Your task to perform on an android device: open app "Pinterest" (install if not already installed) Image 0: 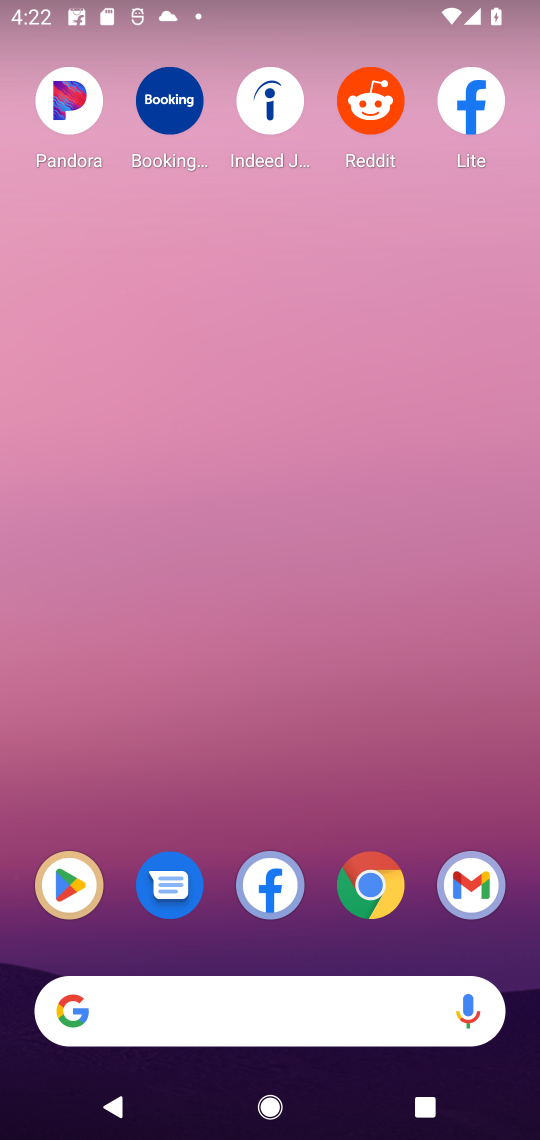
Step 0: click (72, 867)
Your task to perform on an android device: open app "Pinterest" (install if not already installed) Image 1: 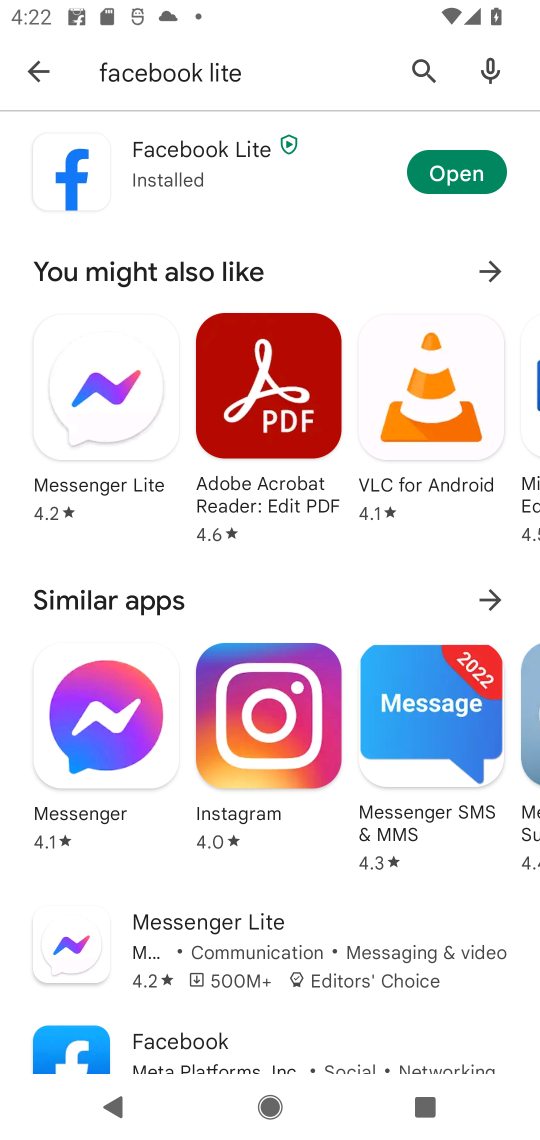
Step 1: click (427, 56)
Your task to perform on an android device: open app "Pinterest" (install if not already installed) Image 2: 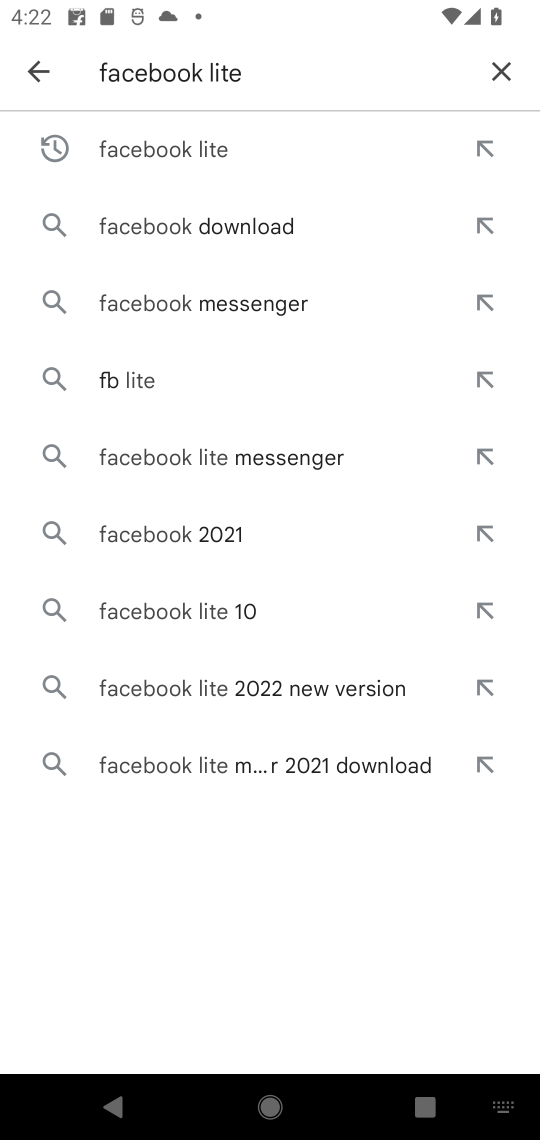
Step 2: click (508, 68)
Your task to perform on an android device: open app "Pinterest" (install if not already installed) Image 3: 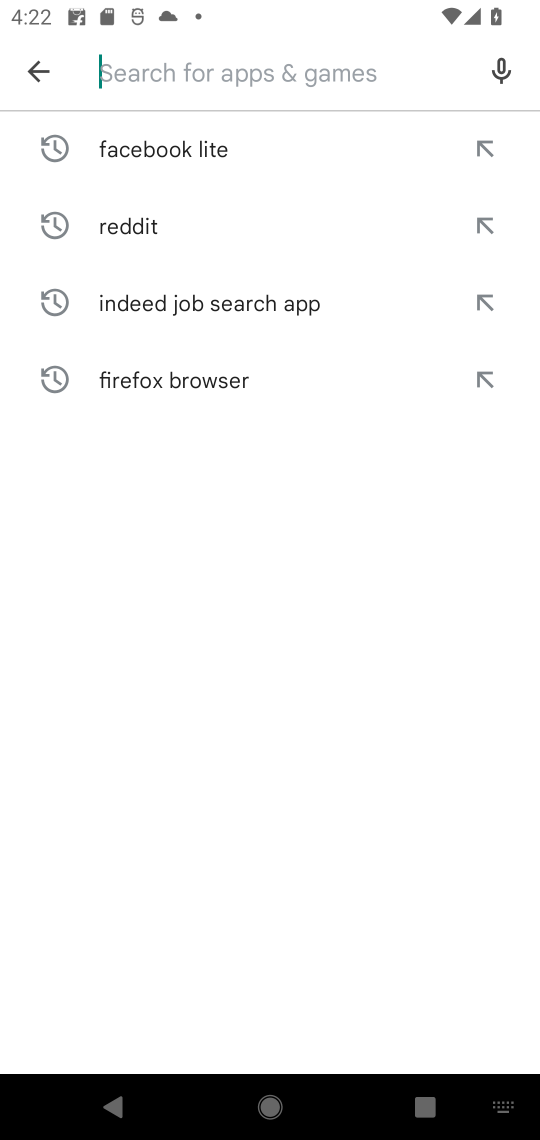
Step 3: type "Pinterest"
Your task to perform on an android device: open app "Pinterest" (install if not already installed) Image 4: 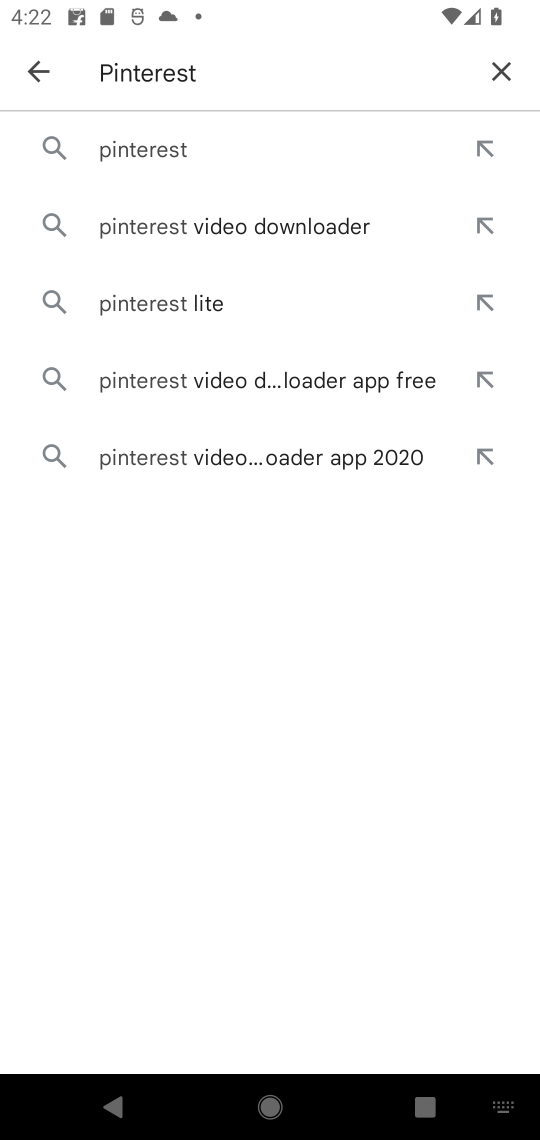
Step 4: click (114, 151)
Your task to perform on an android device: open app "Pinterest" (install if not already installed) Image 5: 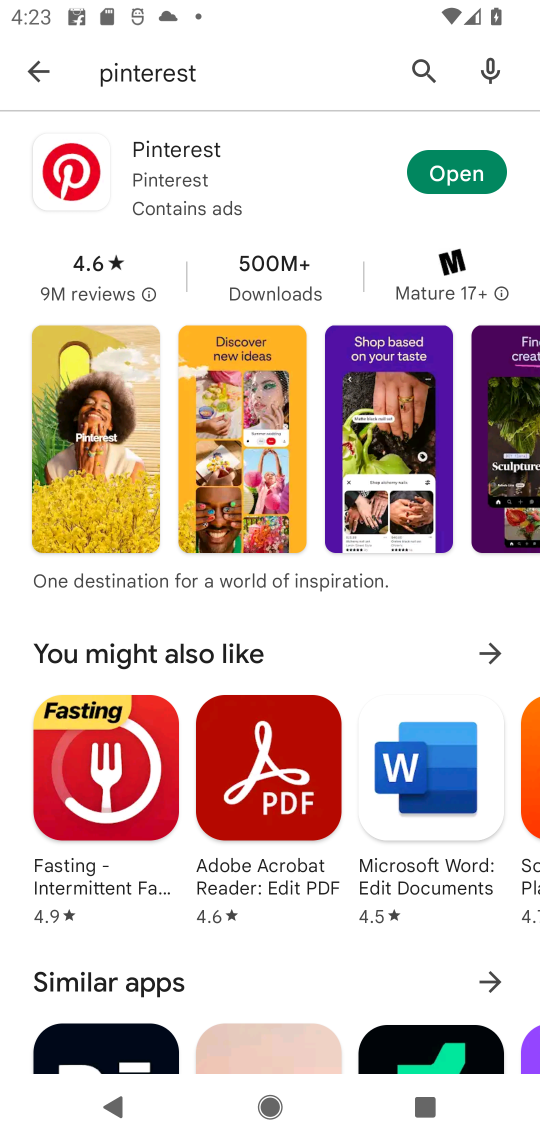
Step 5: click (462, 168)
Your task to perform on an android device: open app "Pinterest" (install if not already installed) Image 6: 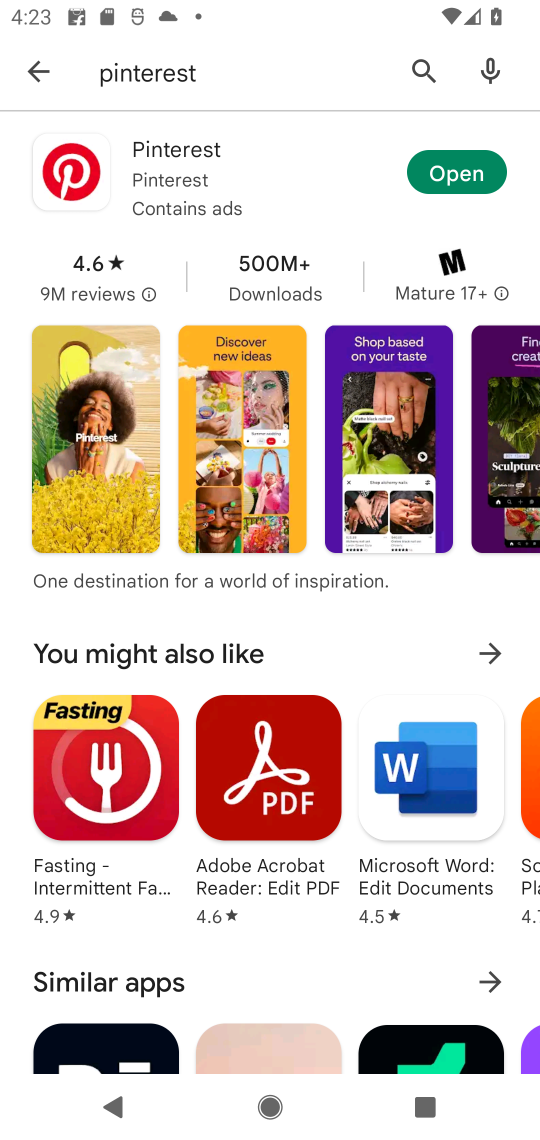
Step 6: click (459, 177)
Your task to perform on an android device: open app "Pinterest" (install if not already installed) Image 7: 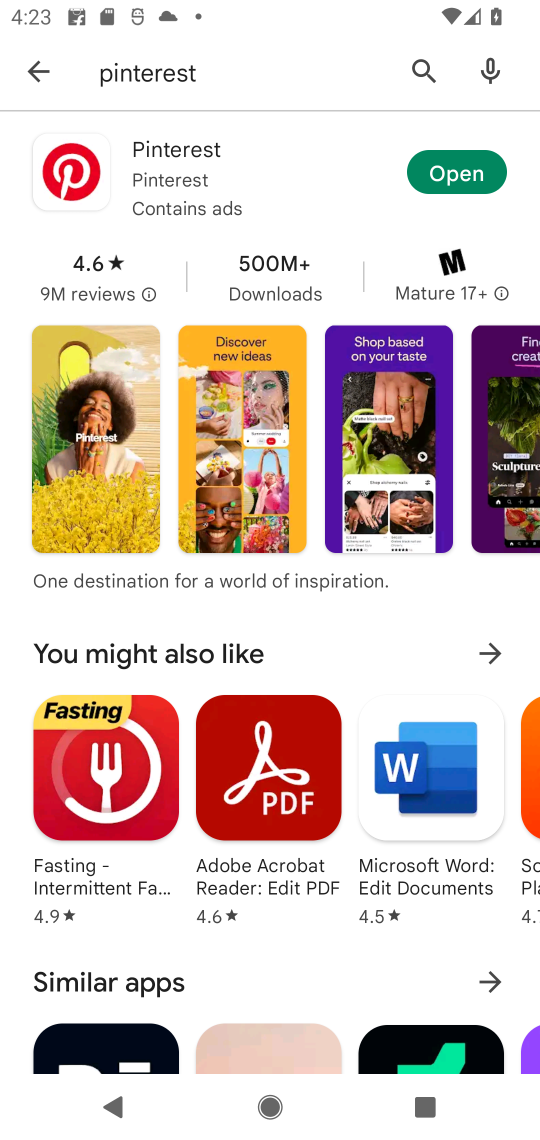
Step 7: click (258, 142)
Your task to perform on an android device: open app "Pinterest" (install if not already installed) Image 8: 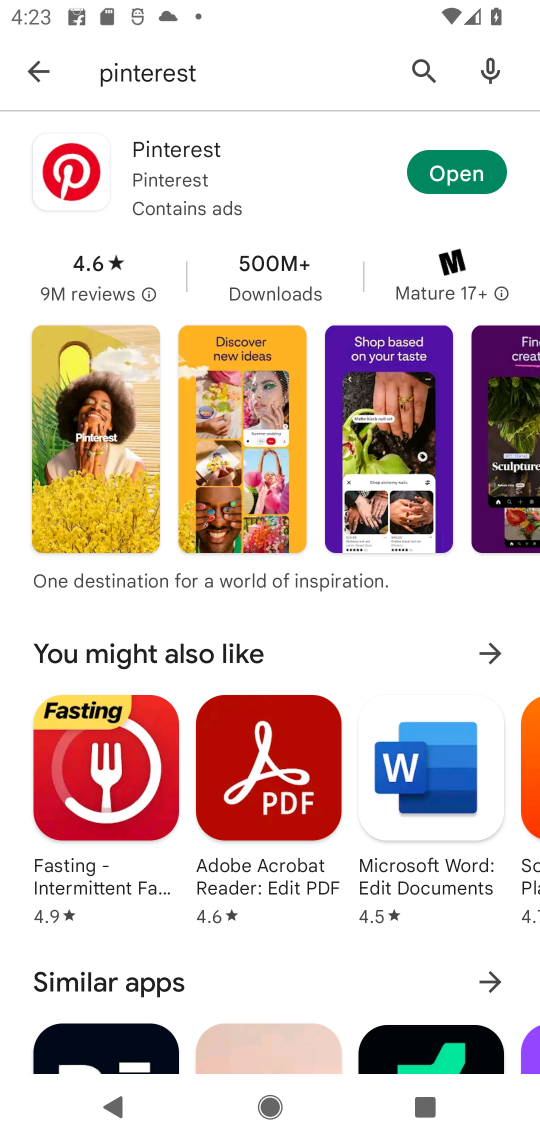
Step 8: click (173, 149)
Your task to perform on an android device: open app "Pinterest" (install if not already installed) Image 9: 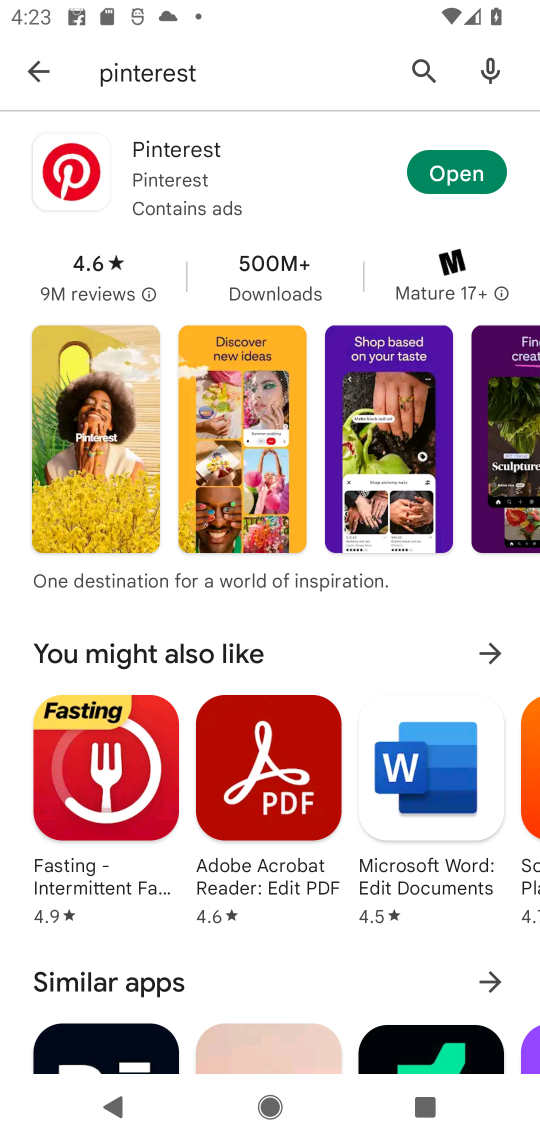
Step 9: click (457, 180)
Your task to perform on an android device: open app "Pinterest" (install if not already installed) Image 10: 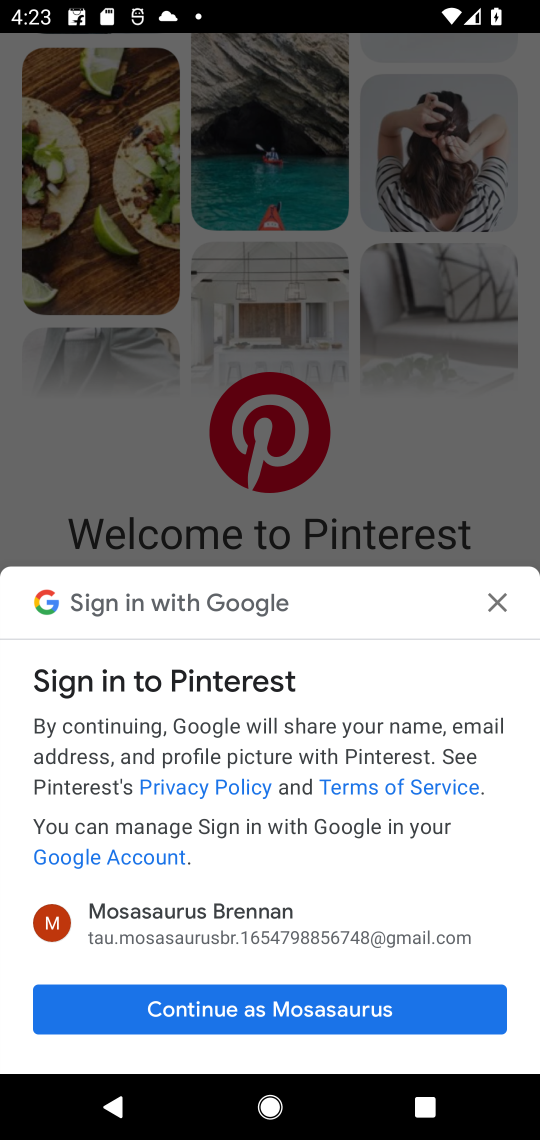
Step 10: click (147, 1020)
Your task to perform on an android device: open app "Pinterest" (install if not already installed) Image 11: 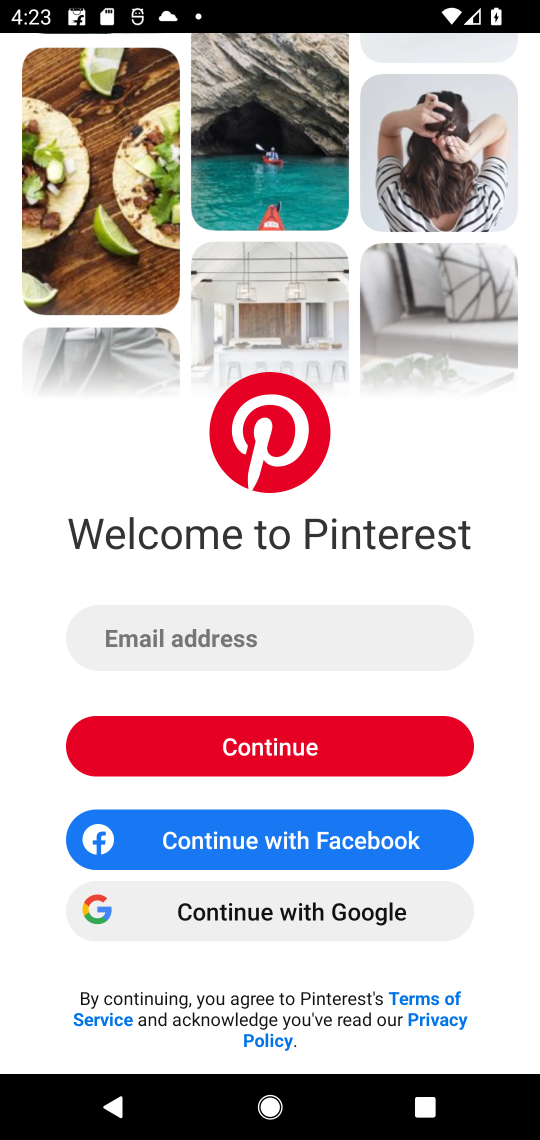
Step 11: task complete